Your task to perform on an android device: turn notification dots off Image 0: 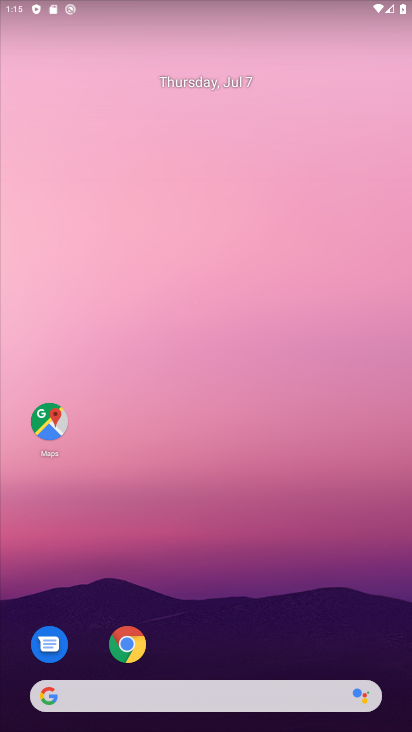
Step 0: drag from (27, 693) to (393, 156)
Your task to perform on an android device: turn notification dots off Image 1: 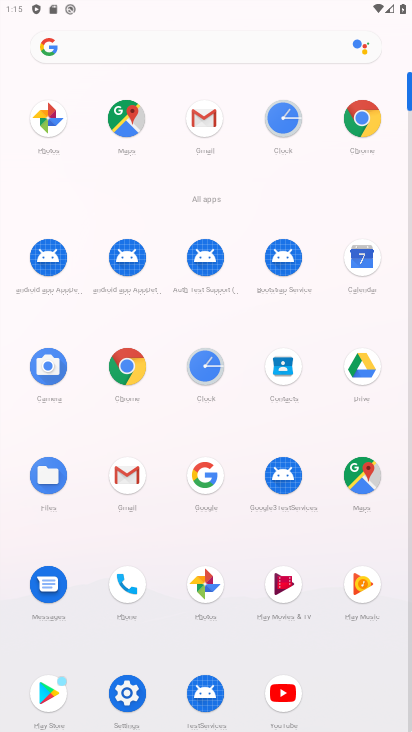
Step 1: click (127, 688)
Your task to perform on an android device: turn notification dots off Image 2: 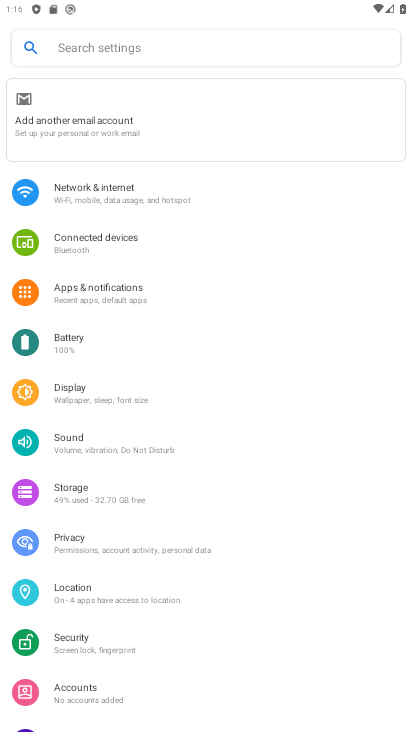
Step 2: drag from (194, 633) to (187, 233)
Your task to perform on an android device: turn notification dots off Image 3: 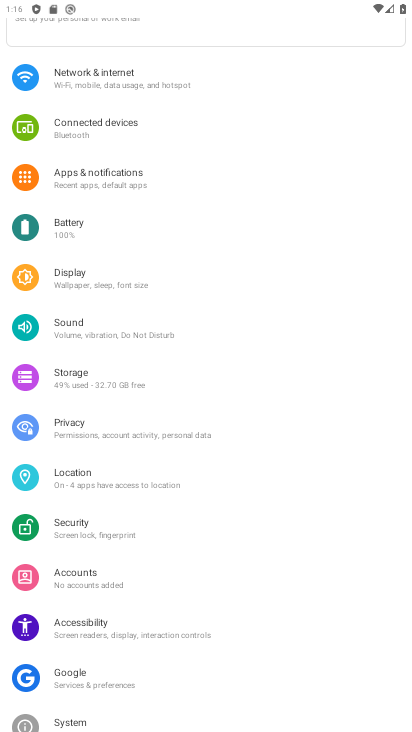
Step 3: drag from (157, 722) to (216, 200)
Your task to perform on an android device: turn notification dots off Image 4: 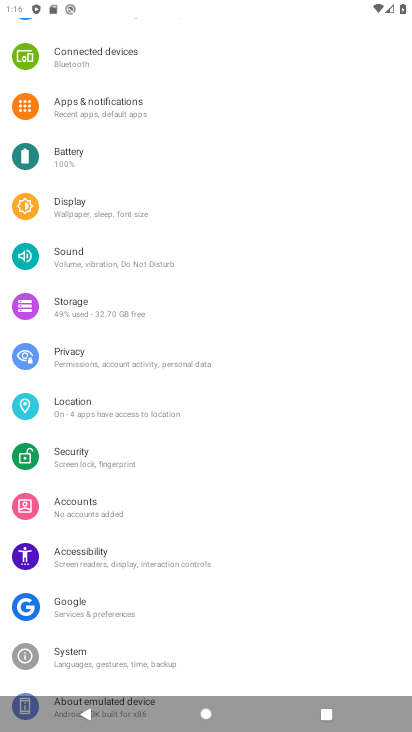
Step 4: drag from (173, 687) to (192, 15)
Your task to perform on an android device: turn notification dots off Image 5: 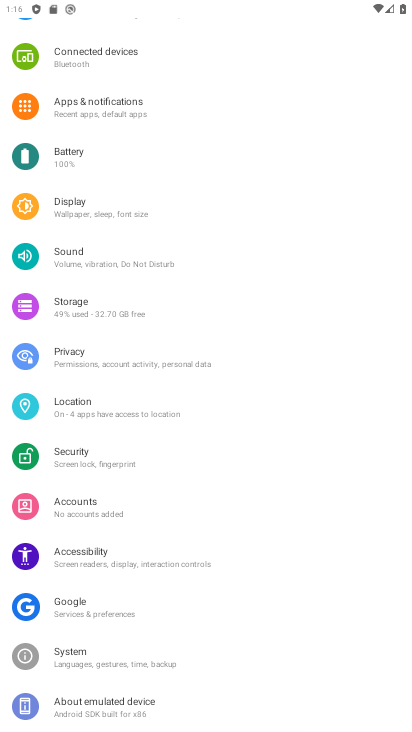
Step 5: drag from (235, 156) to (232, 693)
Your task to perform on an android device: turn notification dots off Image 6: 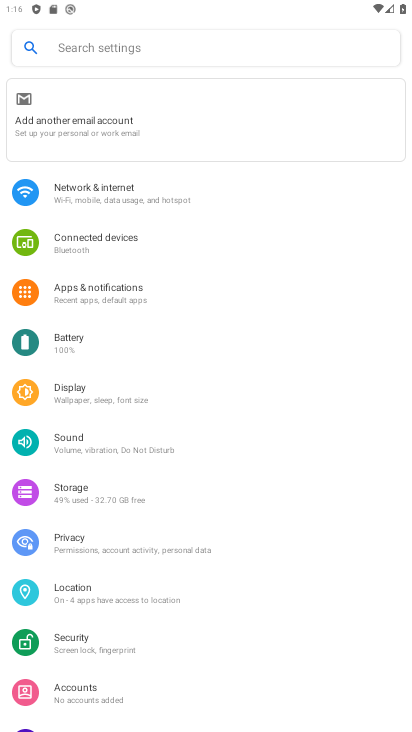
Step 6: drag from (167, 684) to (185, 421)
Your task to perform on an android device: turn notification dots off Image 7: 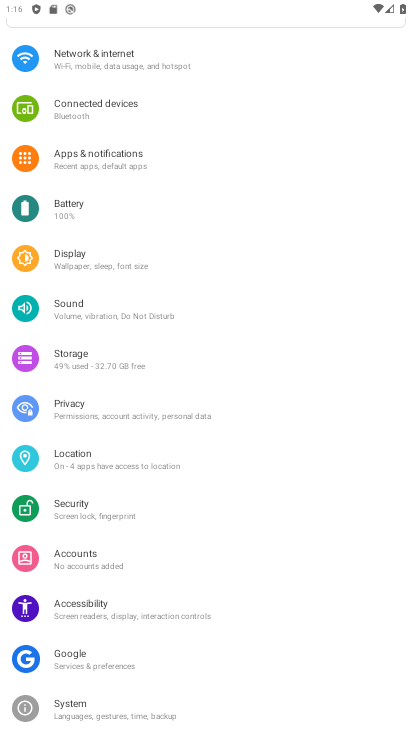
Step 7: drag from (197, 195) to (186, 553)
Your task to perform on an android device: turn notification dots off Image 8: 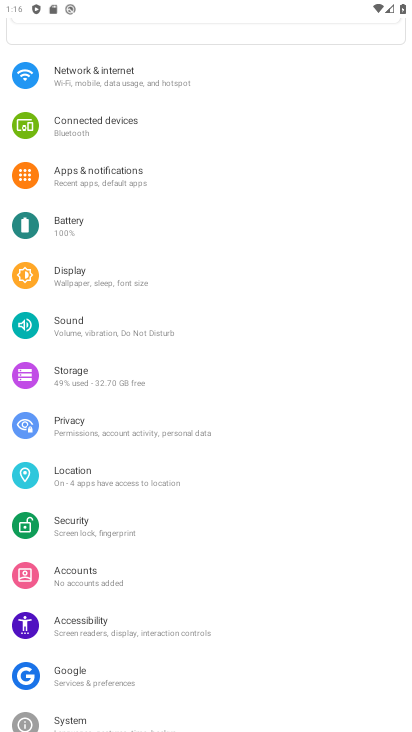
Step 8: click (114, 168)
Your task to perform on an android device: turn notification dots off Image 9: 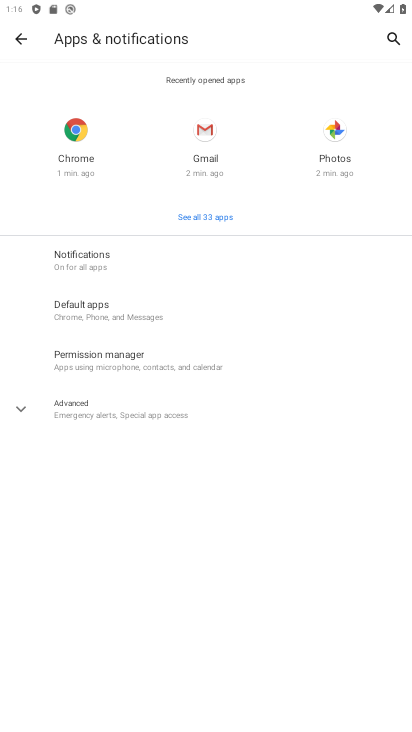
Step 9: click (78, 408)
Your task to perform on an android device: turn notification dots off Image 10: 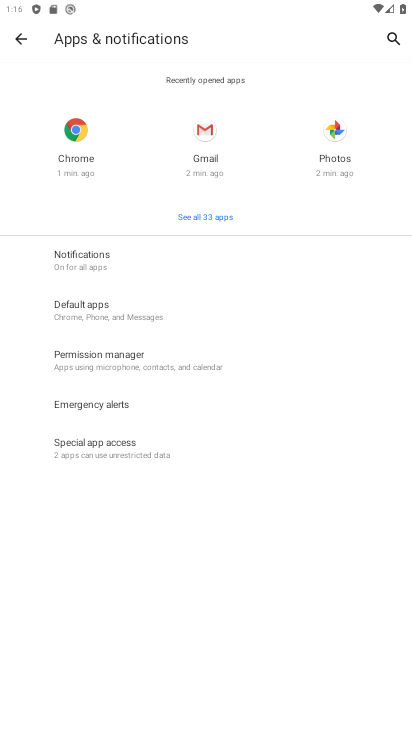
Step 10: click (105, 451)
Your task to perform on an android device: turn notification dots off Image 11: 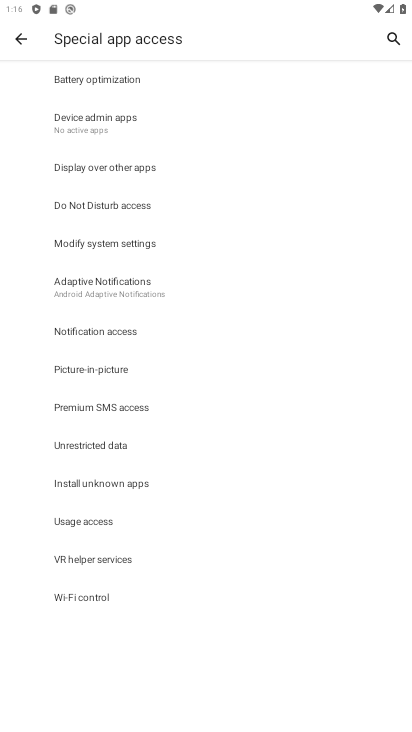
Step 11: click (24, 35)
Your task to perform on an android device: turn notification dots off Image 12: 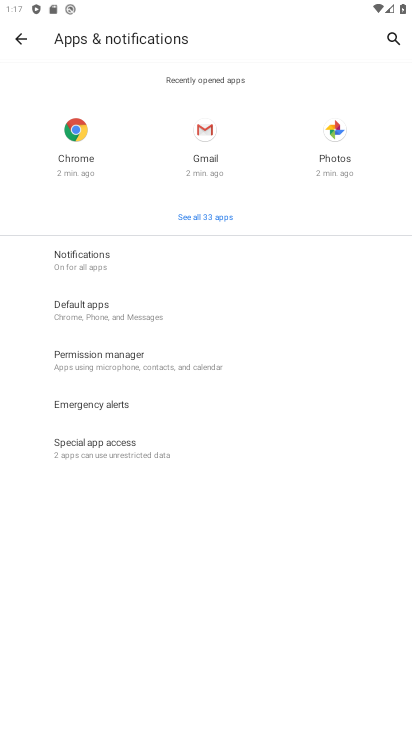
Step 12: click (100, 262)
Your task to perform on an android device: turn notification dots off Image 13: 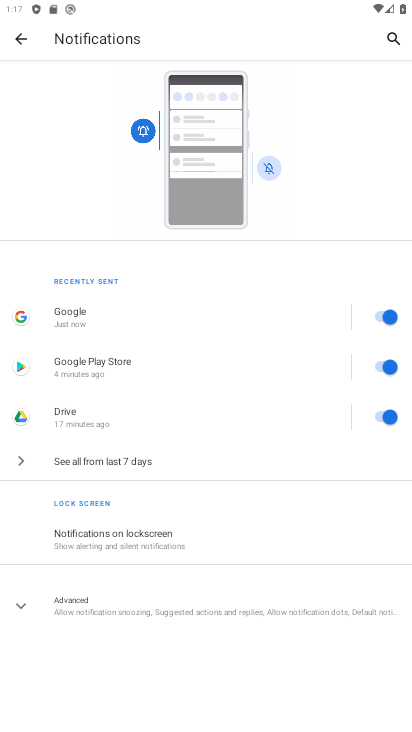
Step 13: click (92, 604)
Your task to perform on an android device: turn notification dots off Image 14: 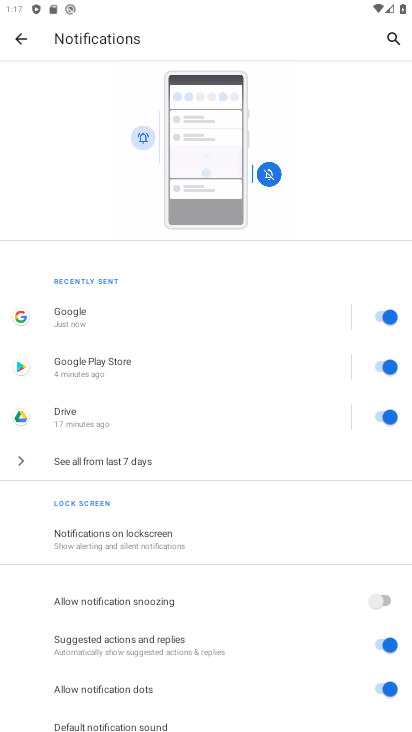
Step 14: drag from (234, 624) to (250, 320)
Your task to perform on an android device: turn notification dots off Image 15: 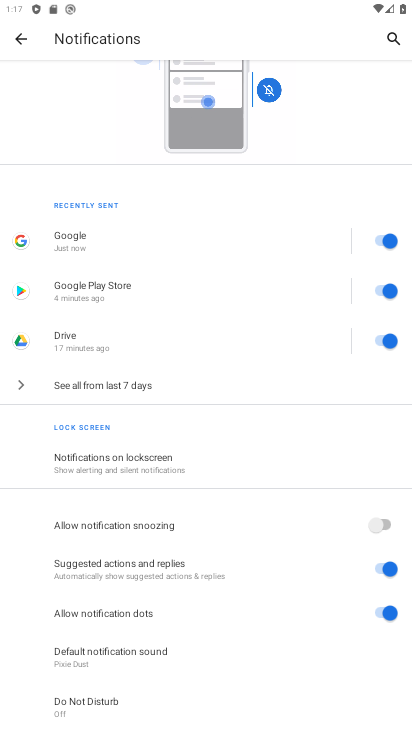
Step 15: click (388, 607)
Your task to perform on an android device: turn notification dots off Image 16: 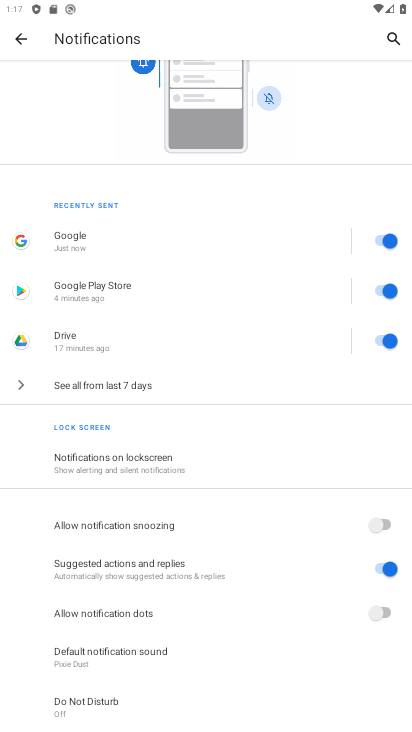
Step 16: task complete